Your task to perform on an android device: turn off translation in the chrome app Image 0: 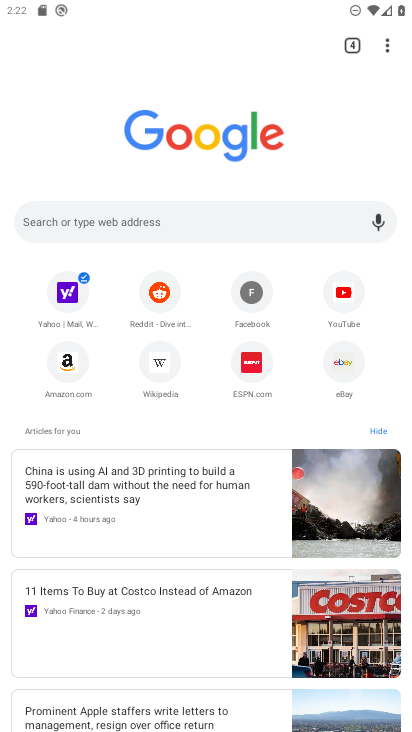
Step 0: drag from (320, 462) to (250, 157)
Your task to perform on an android device: turn off translation in the chrome app Image 1: 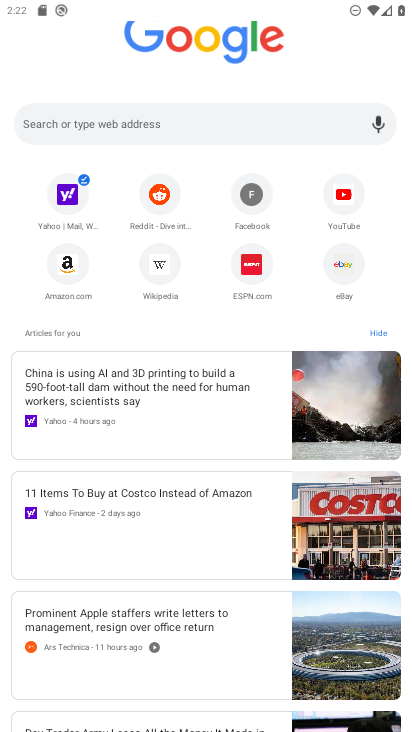
Step 1: drag from (266, 121) to (285, 351)
Your task to perform on an android device: turn off translation in the chrome app Image 2: 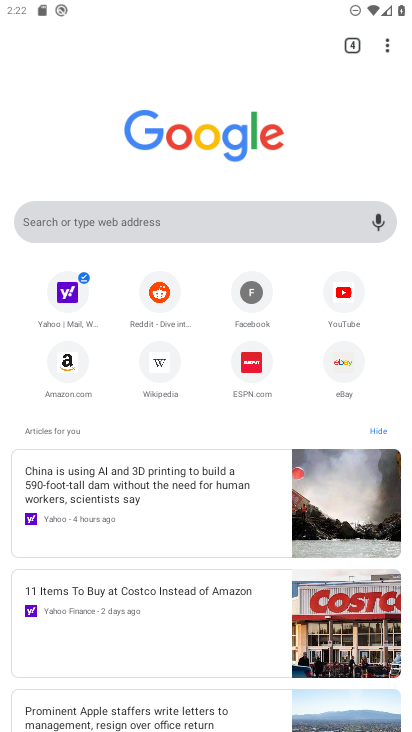
Step 2: drag from (220, 64) to (274, 270)
Your task to perform on an android device: turn off translation in the chrome app Image 3: 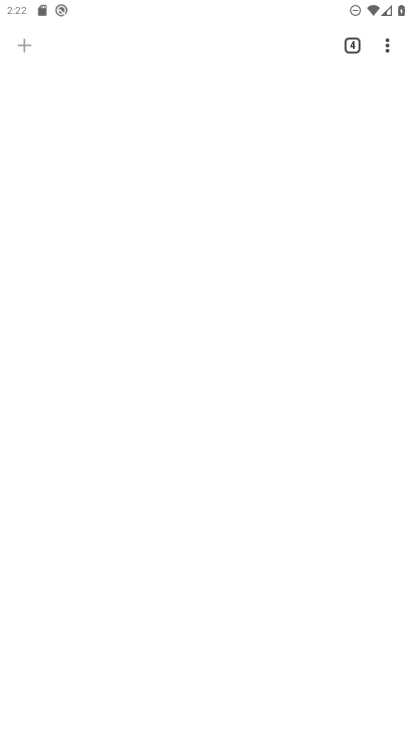
Step 3: drag from (258, 136) to (327, 382)
Your task to perform on an android device: turn off translation in the chrome app Image 4: 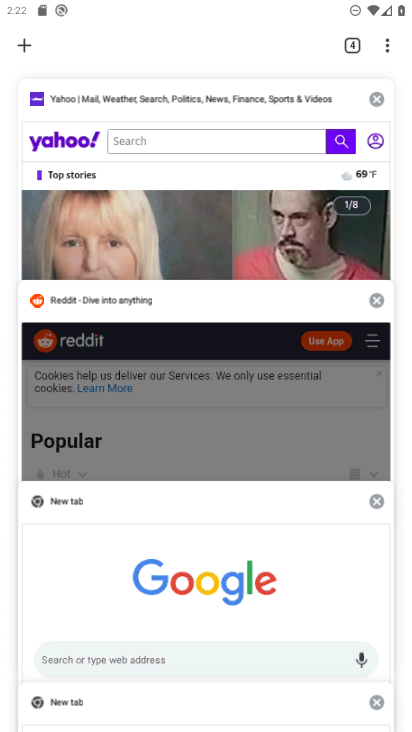
Step 4: drag from (381, 45) to (230, 168)
Your task to perform on an android device: turn off translation in the chrome app Image 5: 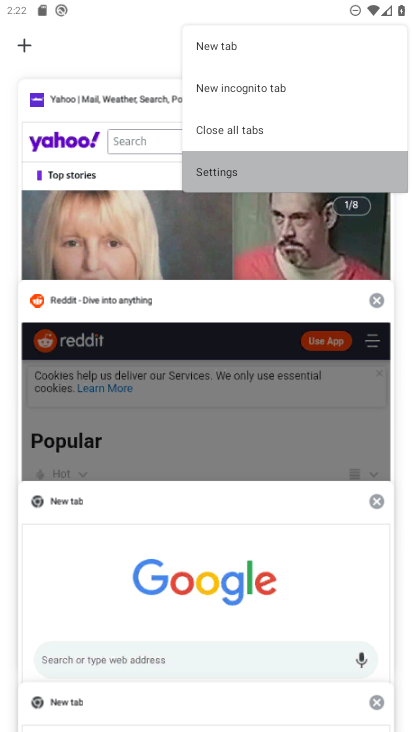
Step 5: click (230, 168)
Your task to perform on an android device: turn off translation in the chrome app Image 6: 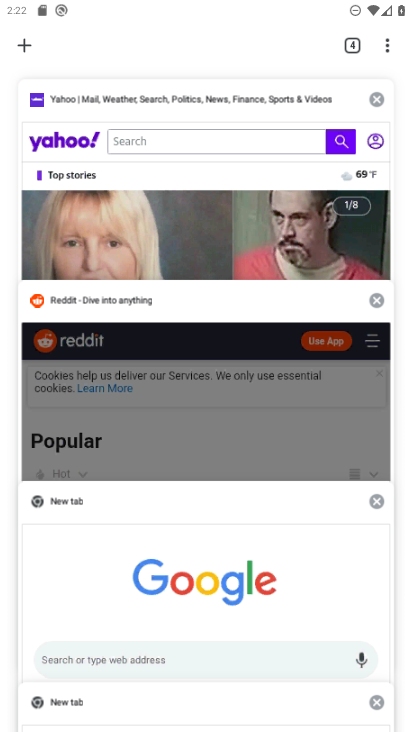
Step 6: click (230, 168)
Your task to perform on an android device: turn off translation in the chrome app Image 7: 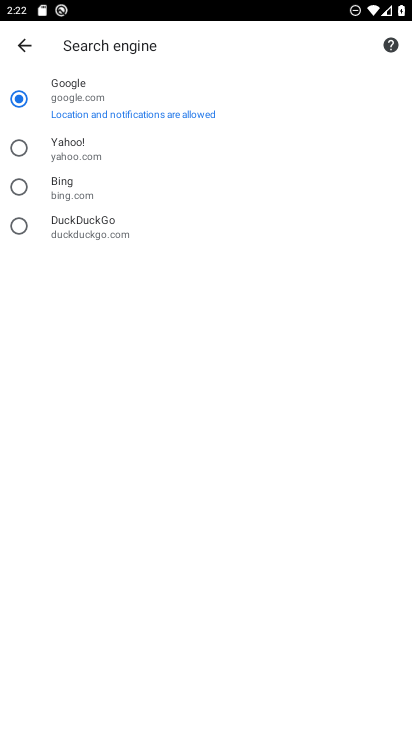
Step 7: click (14, 41)
Your task to perform on an android device: turn off translation in the chrome app Image 8: 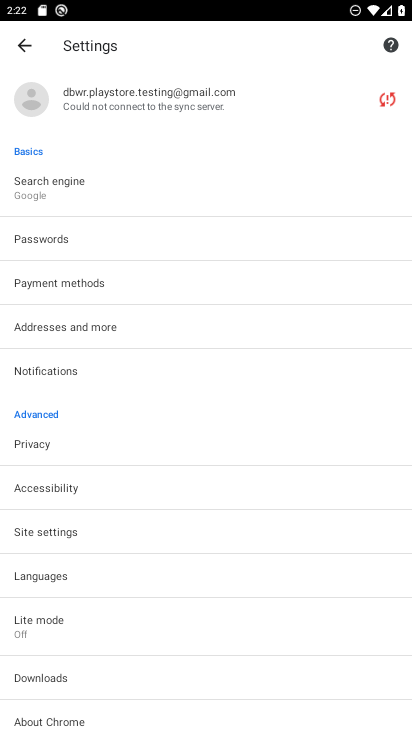
Step 8: click (50, 574)
Your task to perform on an android device: turn off translation in the chrome app Image 9: 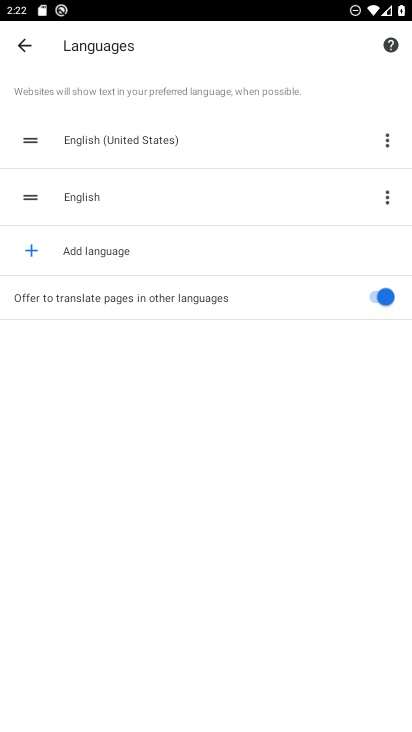
Step 9: click (382, 295)
Your task to perform on an android device: turn off translation in the chrome app Image 10: 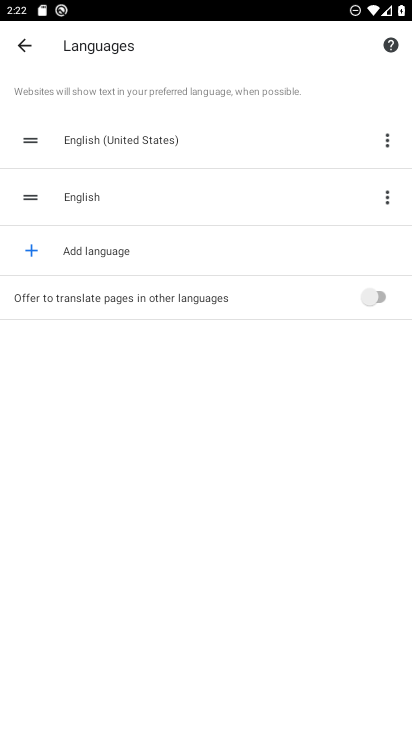
Step 10: task complete